Your task to perform on an android device: Open Maps and search for coffee Image 0: 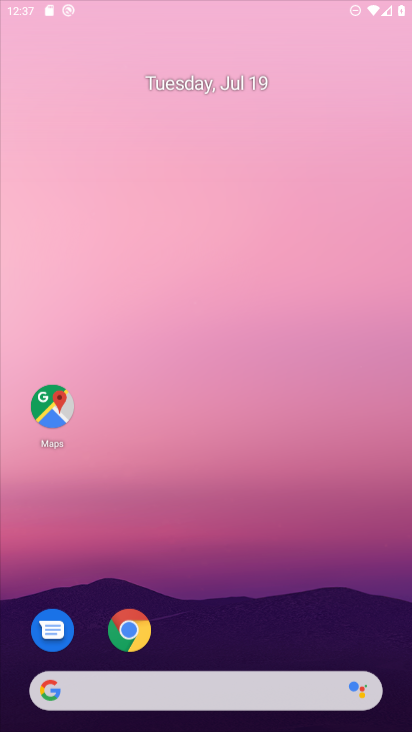
Step 0: press home button
Your task to perform on an android device: Open Maps and search for coffee Image 1: 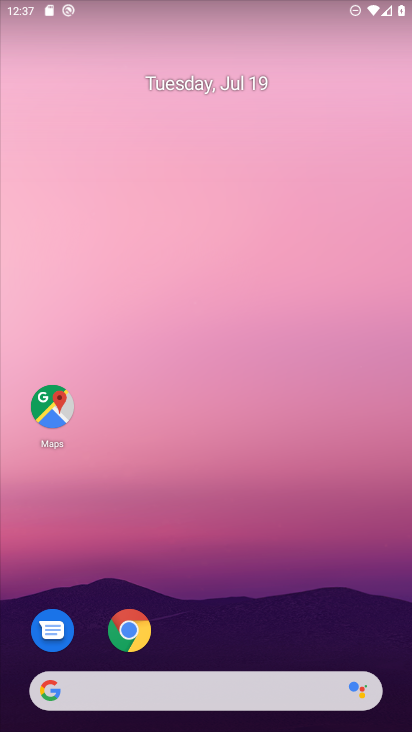
Step 1: click (36, 407)
Your task to perform on an android device: Open Maps and search for coffee Image 2: 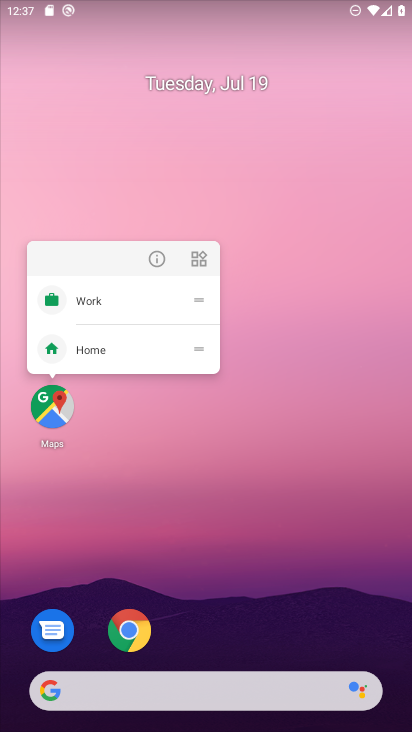
Step 2: click (49, 416)
Your task to perform on an android device: Open Maps and search for coffee Image 3: 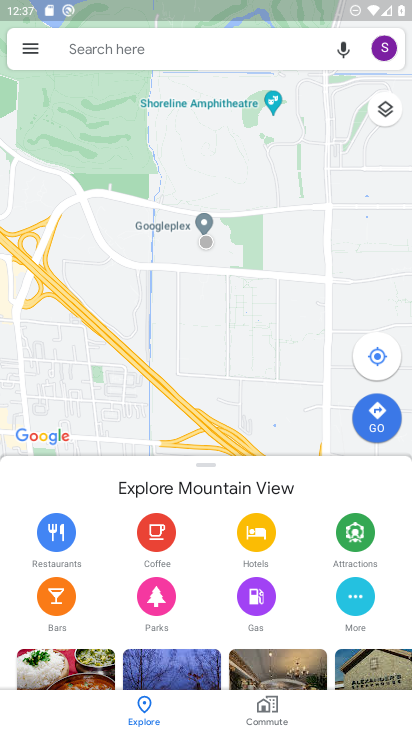
Step 3: click (176, 42)
Your task to perform on an android device: Open Maps and search for coffee Image 4: 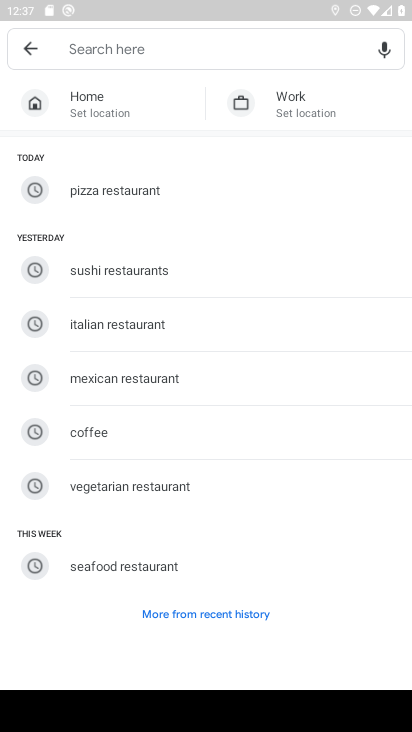
Step 4: click (122, 435)
Your task to perform on an android device: Open Maps and search for coffee Image 5: 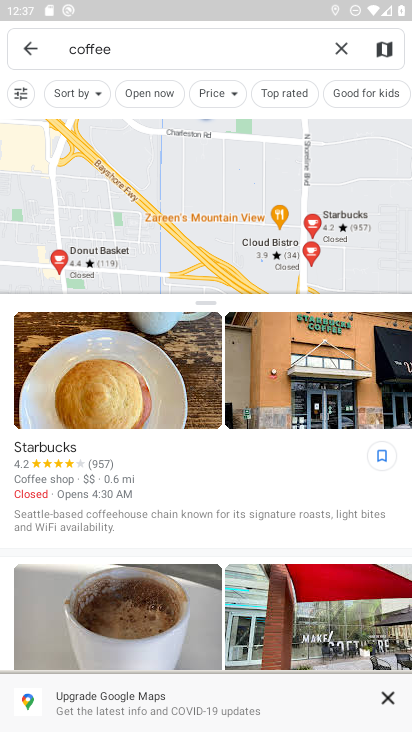
Step 5: task complete